Your task to perform on an android device: turn on translation in the chrome app Image 0: 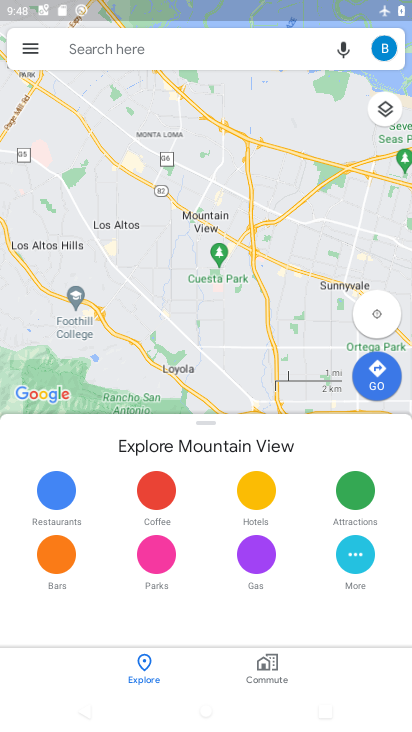
Step 0: press home button
Your task to perform on an android device: turn on translation in the chrome app Image 1: 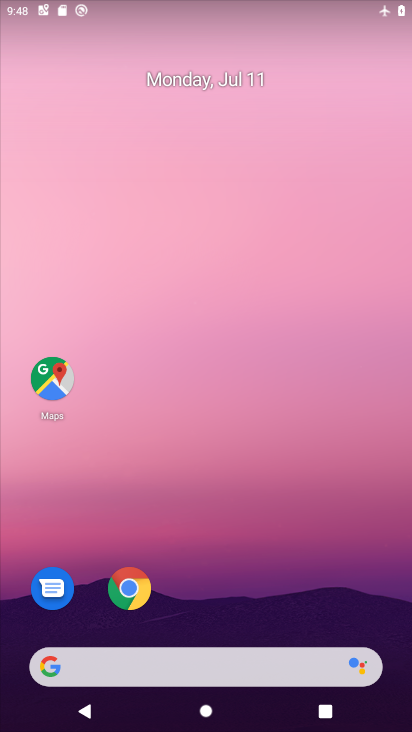
Step 1: drag from (181, 566) to (229, 176)
Your task to perform on an android device: turn on translation in the chrome app Image 2: 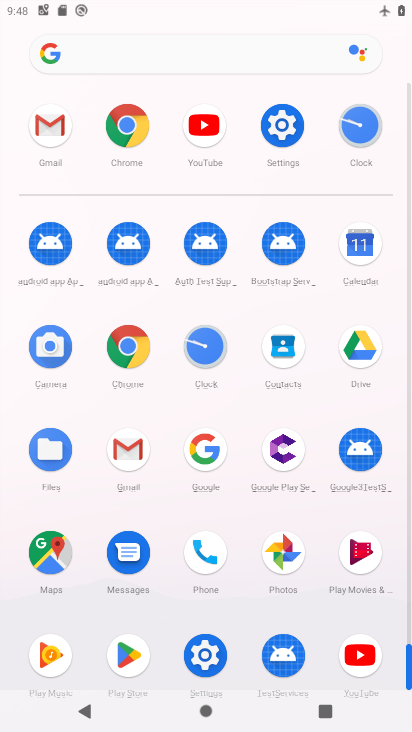
Step 2: click (133, 126)
Your task to perform on an android device: turn on translation in the chrome app Image 3: 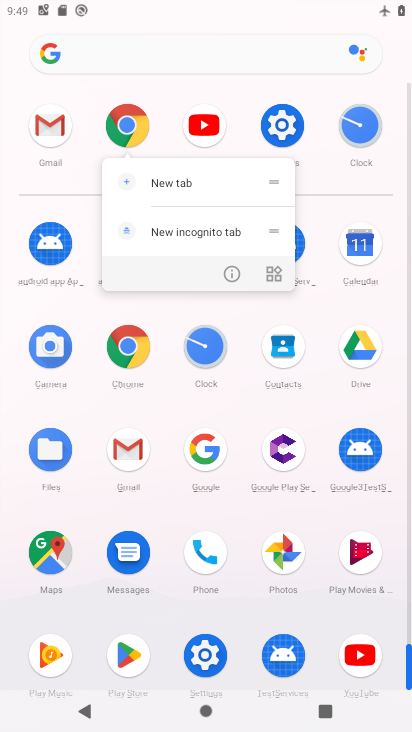
Step 3: click (133, 126)
Your task to perform on an android device: turn on translation in the chrome app Image 4: 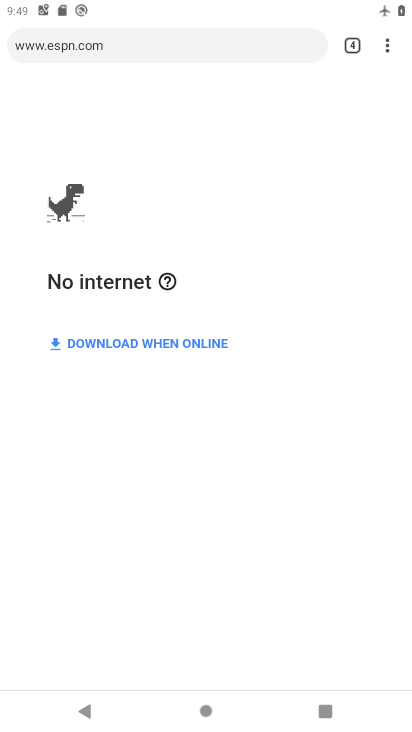
Step 4: click (391, 39)
Your task to perform on an android device: turn on translation in the chrome app Image 5: 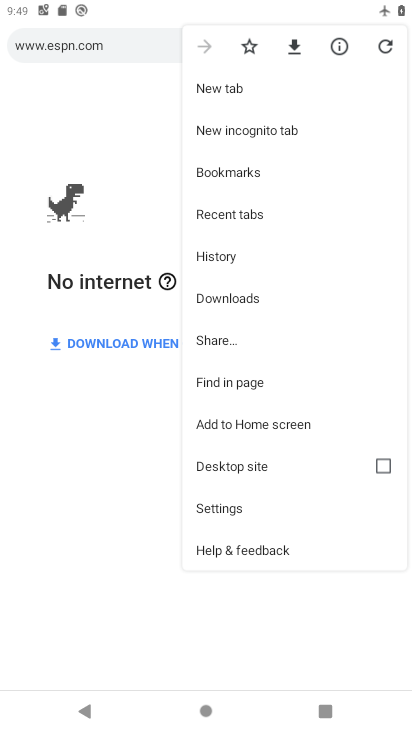
Step 5: click (252, 497)
Your task to perform on an android device: turn on translation in the chrome app Image 6: 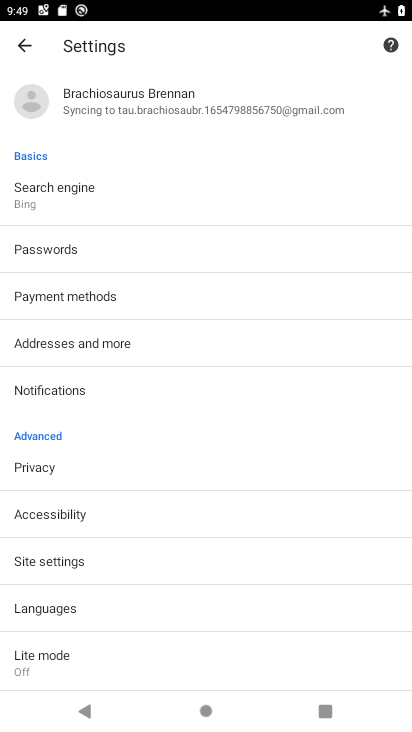
Step 6: drag from (119, 582) to (133, 483)
Your task to perform on an android device: turn on translation in the chrome app Image 7: 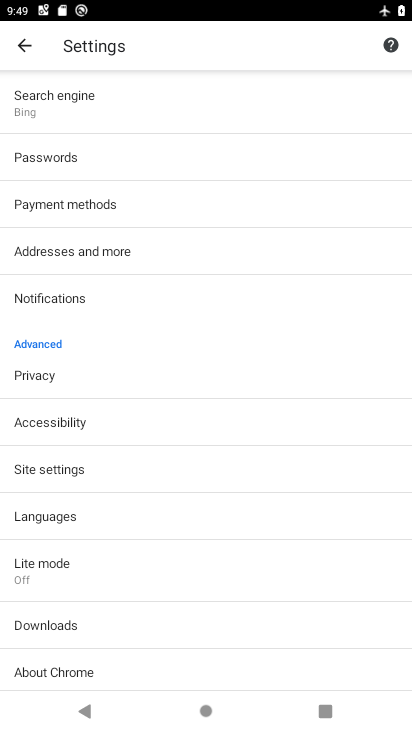
Step 7: click (104, 526)
Your task to perform on an android device: turn on translation in the chrome app Image 8: 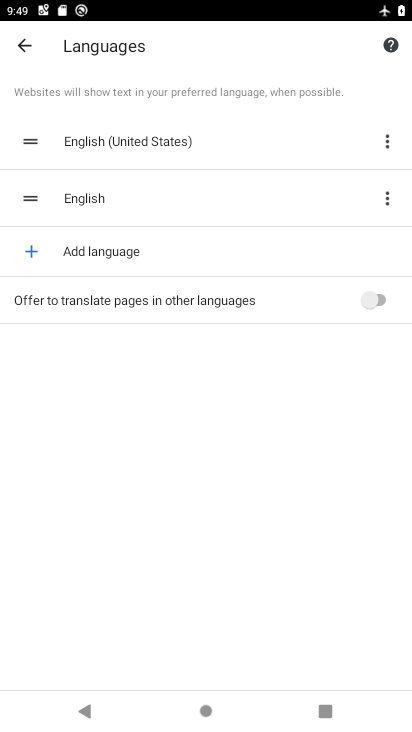
Step 8: click (377, 301)
Your task to perform on an android device: turn on translation in the chrome app Image 9: 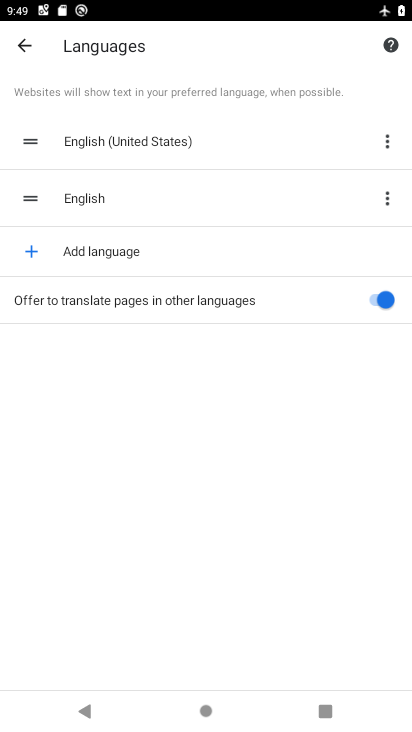
Step 9: task complete